Your task to perform on an android device: toggle javascript in the chrome app Image 0: 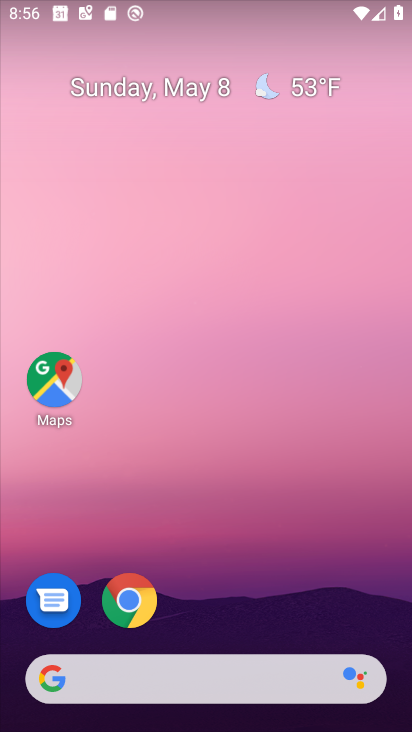
Step 0: drag from (199, 603) to (167, 133)
Your task to perform on an android device: toggle javascript in the chrome app Image 1: 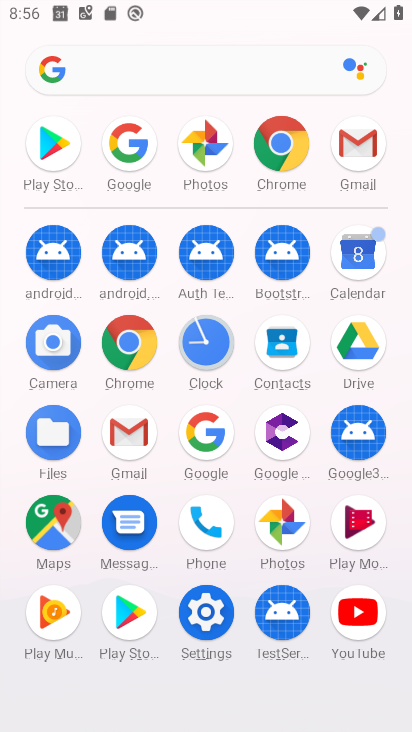
Step 1: click (268, 162)
Your task to perform on an android device: toggle javascript in the chrome app Image 2: 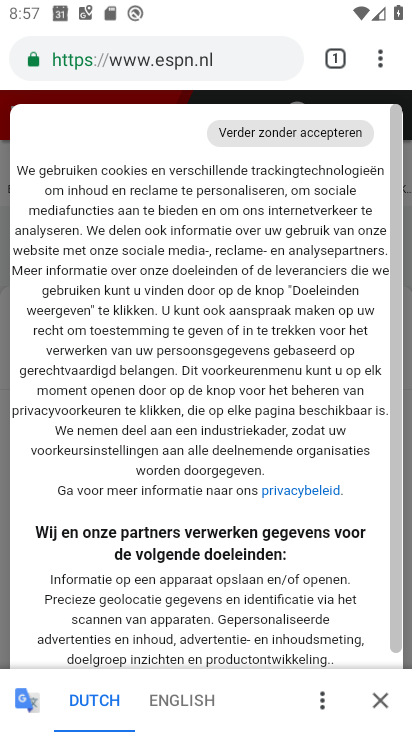
Step 2: click (377, 72)
Your task to perform on an android device: toggle javascript in the chrome app Image 3: 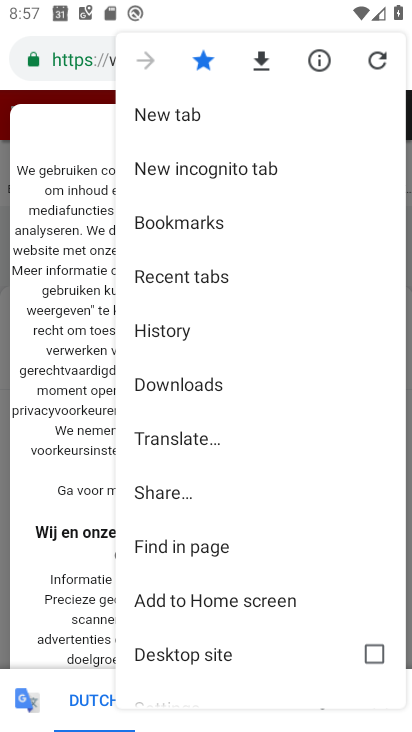
Step 3: drag from (234, 519) to (250, 246)
Your task to perform on an android device: toggle javascript in the chrome app Image 4: 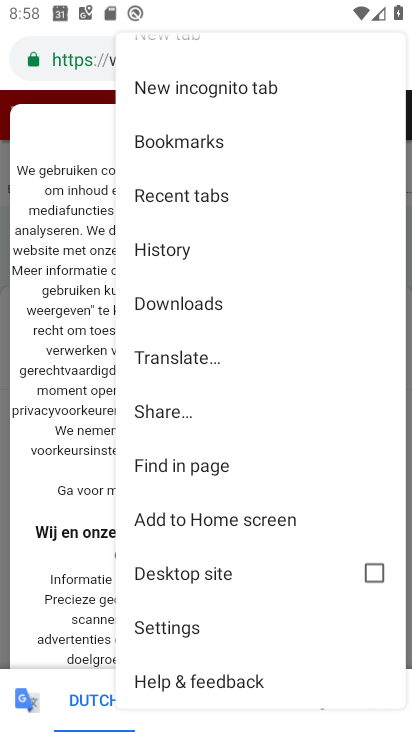
Step 4: click (194, 620)
Your task to perform on an android device: toggle javascript in the chrome app Image 5: 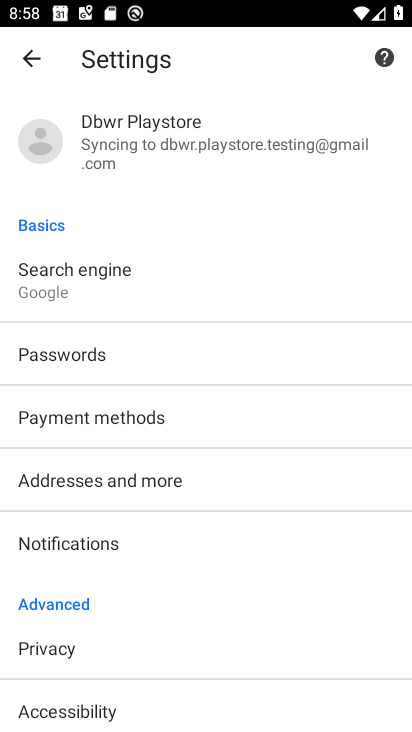
Step 5: drag from (205, 644) to (195, 228)
Your task to perform on an android device: toggle javascript in the chrome app Image 6: 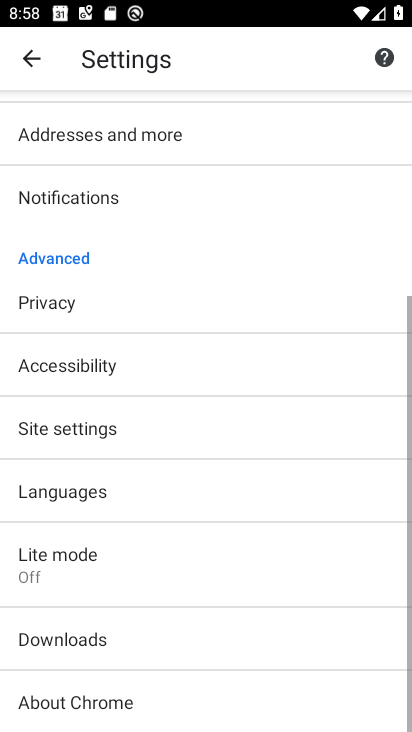
Step 6: click (146, 439)
Your task to perform on an android device: toggle javascript in the chrome app Image 7: 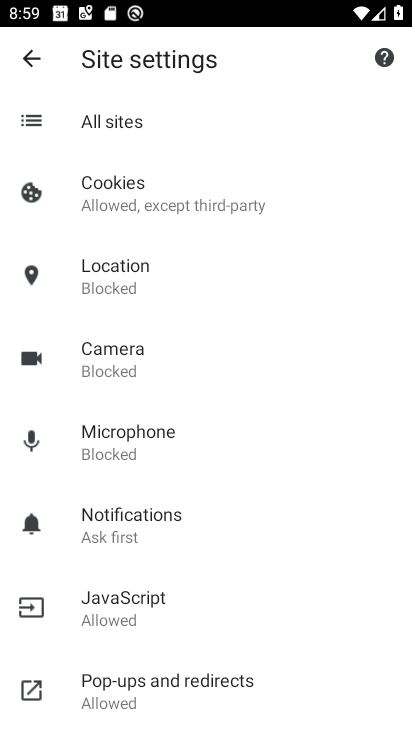
Step 7: click (153, 591)
Your task to perform on an android device: toggle javascript in the chrome app Image 8: 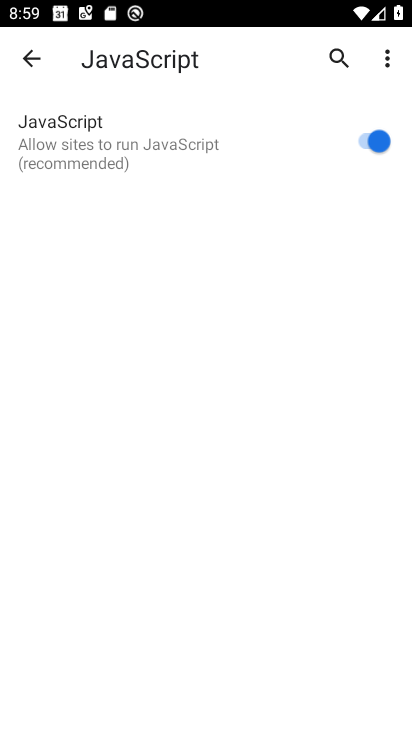
Step 8: click (368, 155)
Your task to perform on an android device: toggle javascript in the chrome app Image 9: 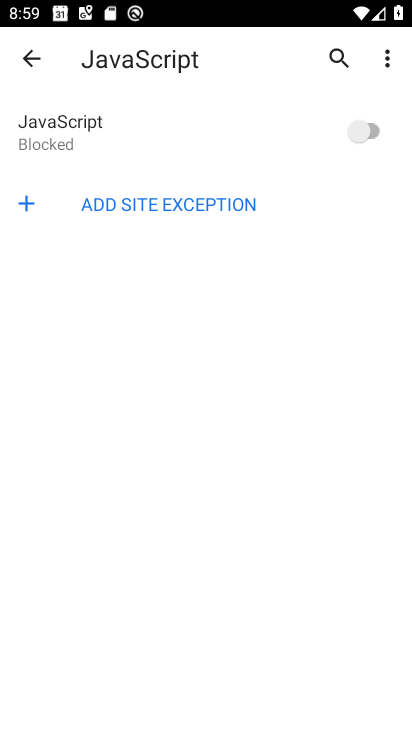
Step 9: task complete